Your task to perform on an android device: Open internet settings Image 0: 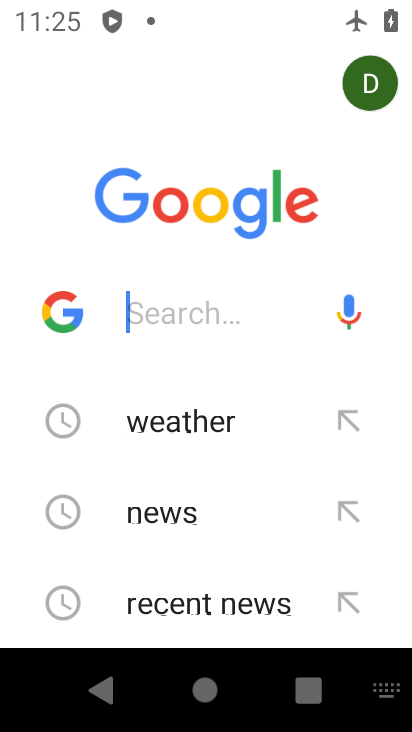
Step 0: press back button
Your task to perform on an android device: Open internet settings Image 1: 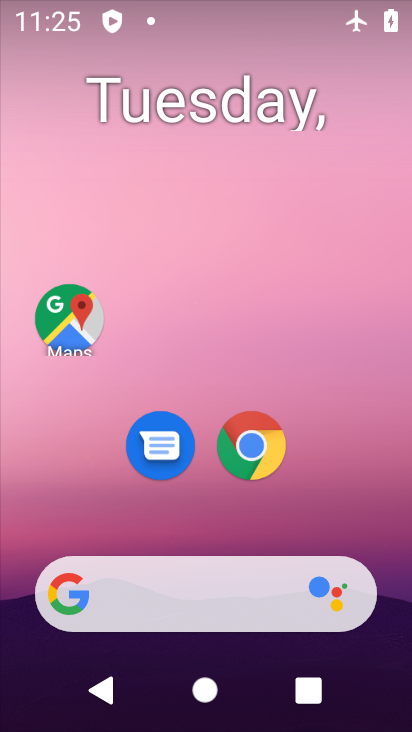
Step 1: drag from (339, 505) to (268, 17)
Your task to perform on an android device: Open internet settings Image 2: 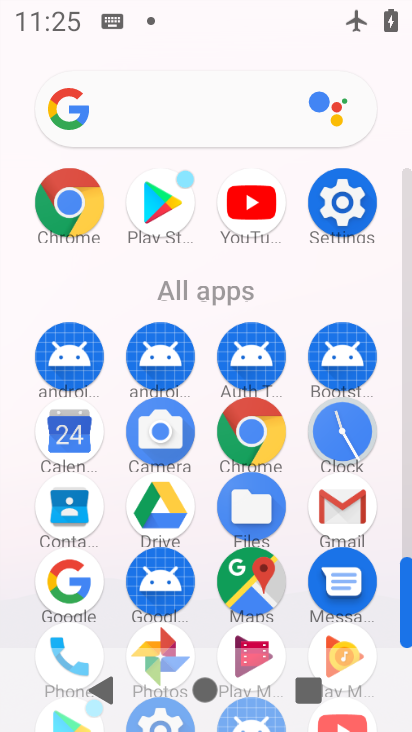
Step 2: click (342, 197)
Your task to perform on an android device: Open internet settings Image 3: 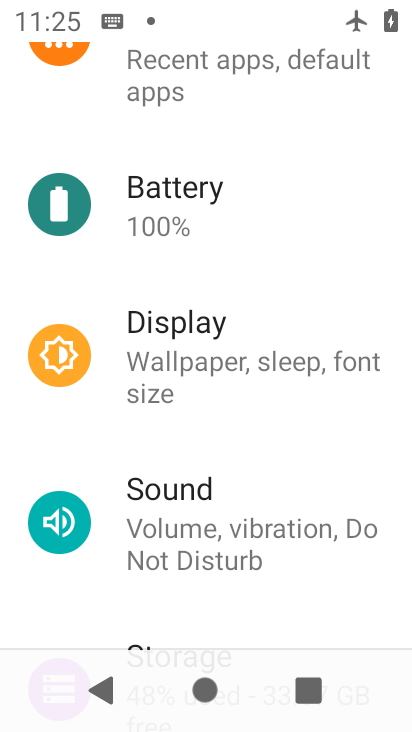
Step 3: drag from (312, 159) to (276, 556)
Your task to perform on an android device: Open internet settings Image 4: 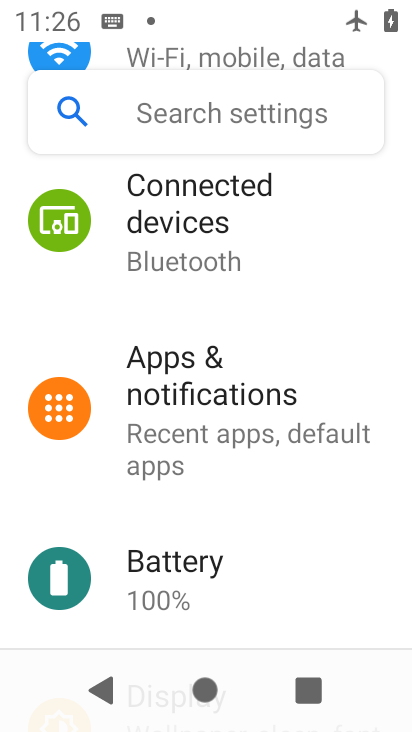
Step 4: drag from (260, 291) to (250, 605)
Your task to perform on an android device: Open internet settings Image 5: 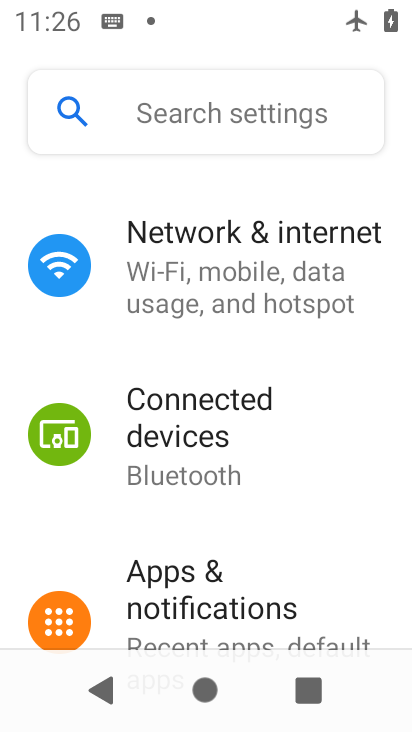
Step 5: drag from (289, 252) to (258, 568)
Your task to perform on an android device: Open internet settings Image 6: 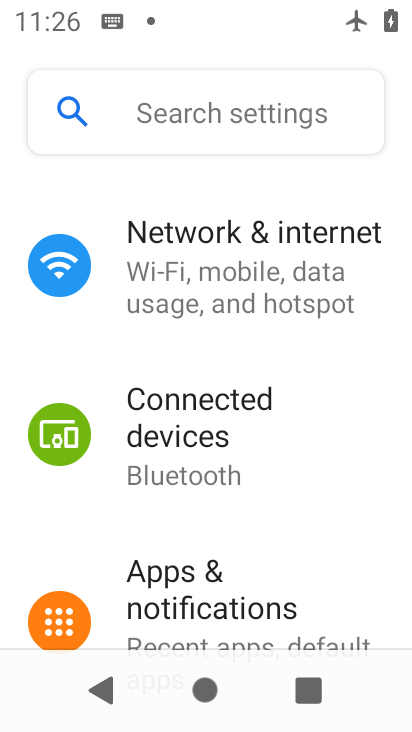
Step 6: click (239, 271)
Your task to perform on an android device: Open internet settings Image 7: 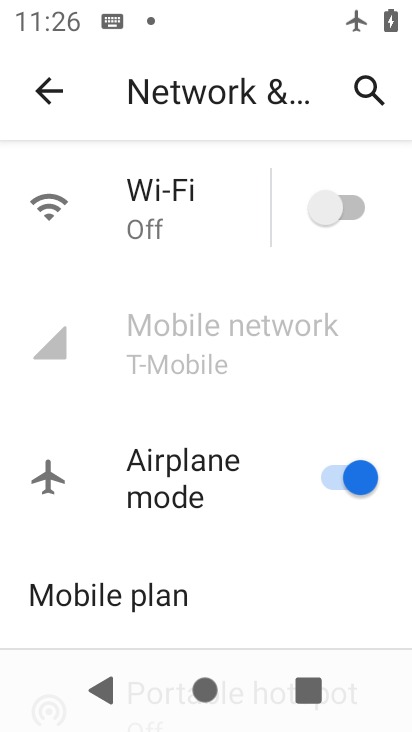
Step 7: drag from (191, 536) to (200, 146)
Your task to perform on an android device: Open internet settings Image 8: 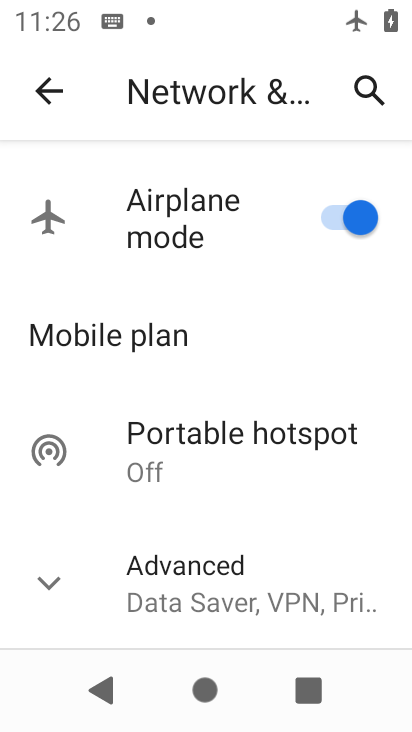
Step 8: drag from (196, 519) to (193, 229)
Your task to perform on an android device: Open internet settings Image 9: 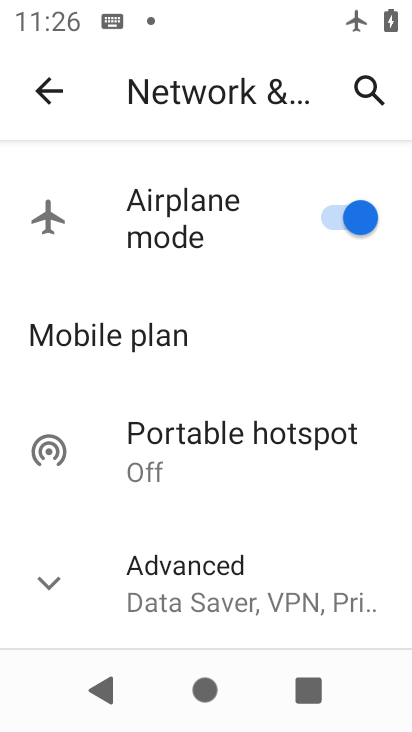
Step 9: click (56, 569)
Your task to perform on an android device: Open internet settings Image 10: 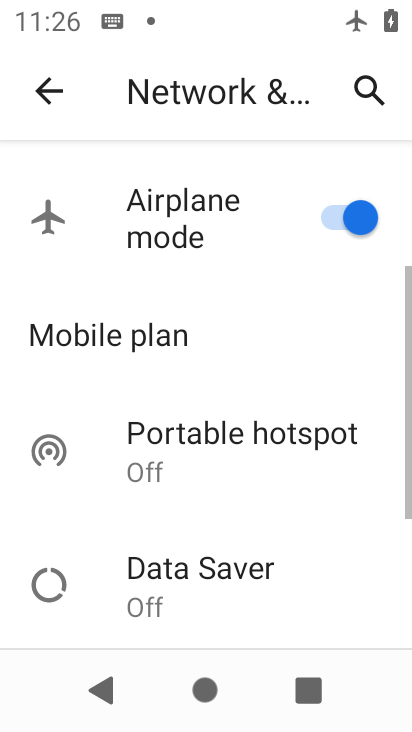
Step 10: task complete